Your task to perform on an android device: change keyboard looks Image 0: 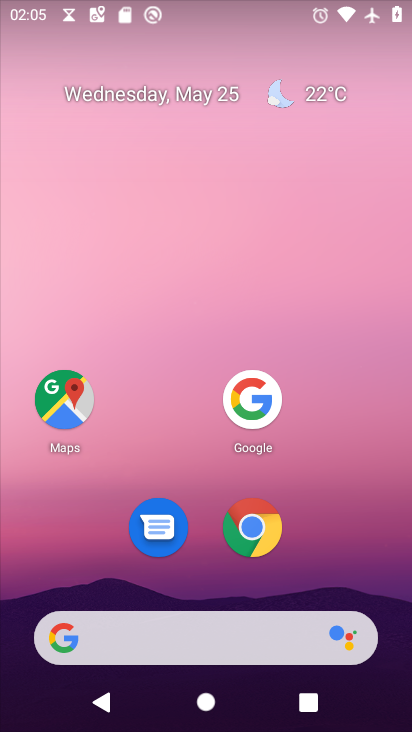
Step 0: press home button
Your task to perform on an android device: change keyboard looks Image 1: 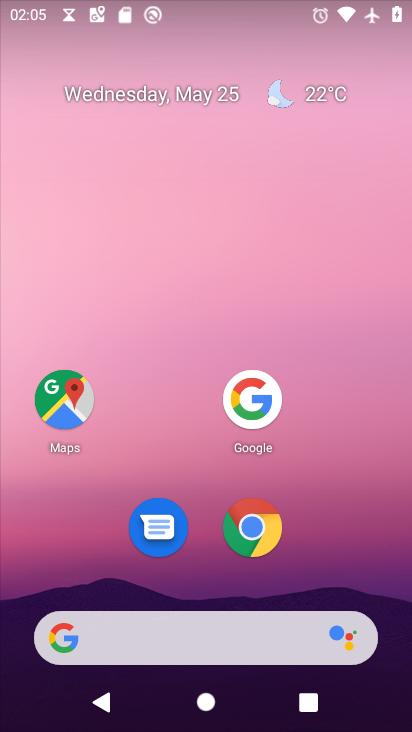
Step 1: drag from (181, 642) to (301, 112)
Your task to perform on an android device: change keyboard looks Image 2: 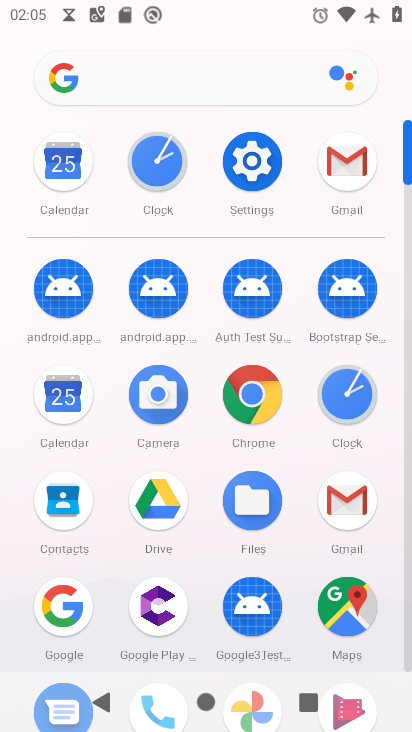
Step 2: click (255, 167)
Your task to perform on an android device: change keyboard looks Image 3: 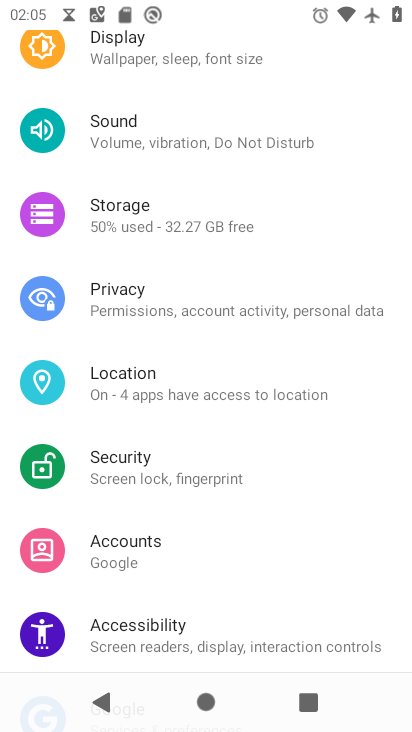
Step 3: drag from (208, 606) to (371, 0)
Your task to perform on an android device: change keyboard looks Image 4: 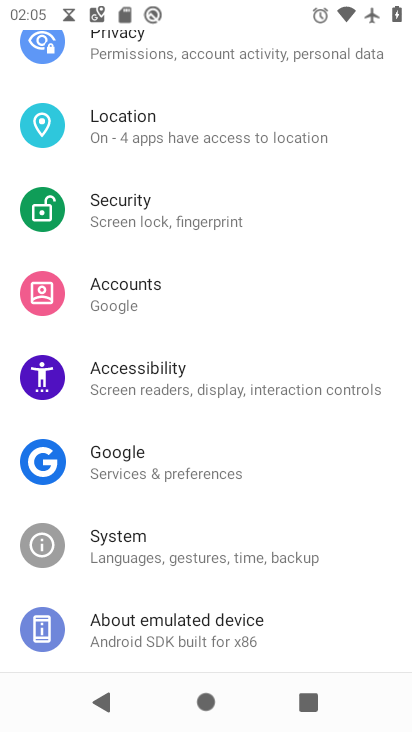
Step 4: click (153, 552)
Your task to perform on an android device: change keyboard looks Image 5: 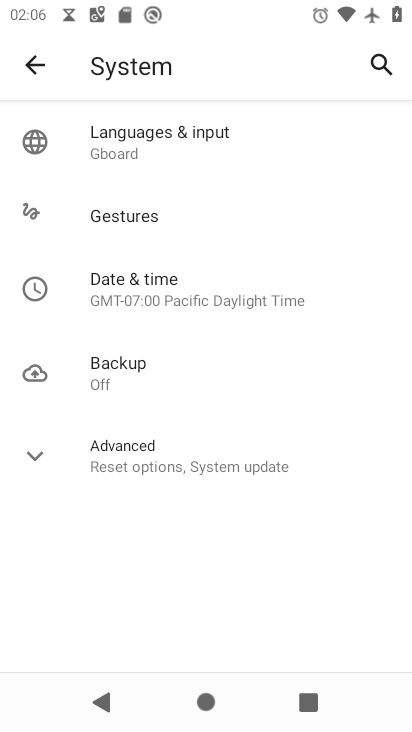
Step 5: click (152, 153)
Your task to perform on an android device: change keyboard looks Image 6: 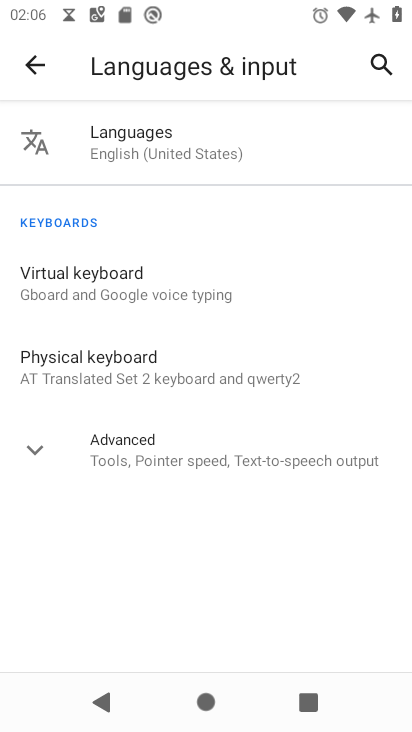
Step 6: click (130, 290)
Your task to perform on an android device: change keyboard looks Image 7: 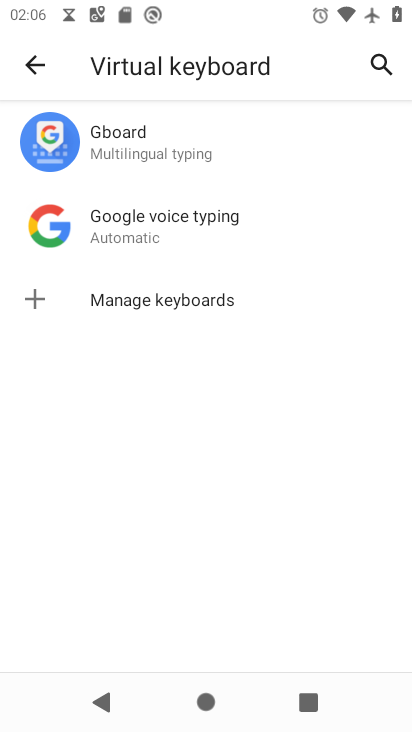
Step 7: click (138, 131)
Your task to perform on an android device: change keyboard looks Image 8: 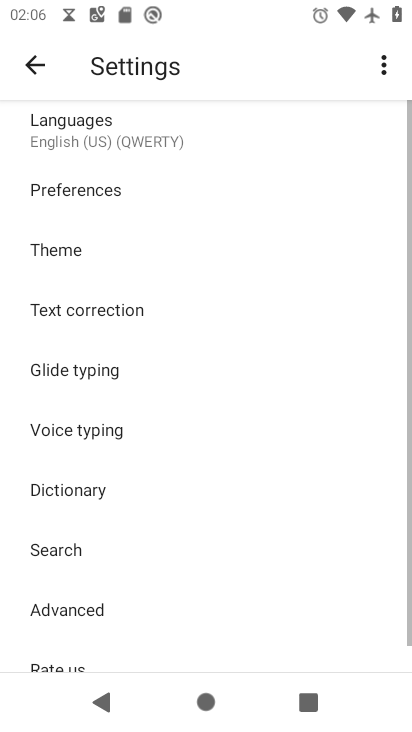
Step 8: click (77, 259)
Your task to perform on an android device: change keyboard looks Image 9: 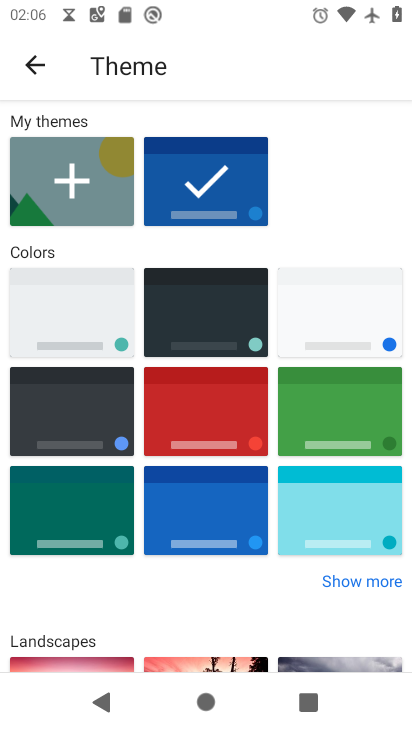
Step 9: click (213, 398)
Your task to perform on an android device: change keyboard looks Image 10: 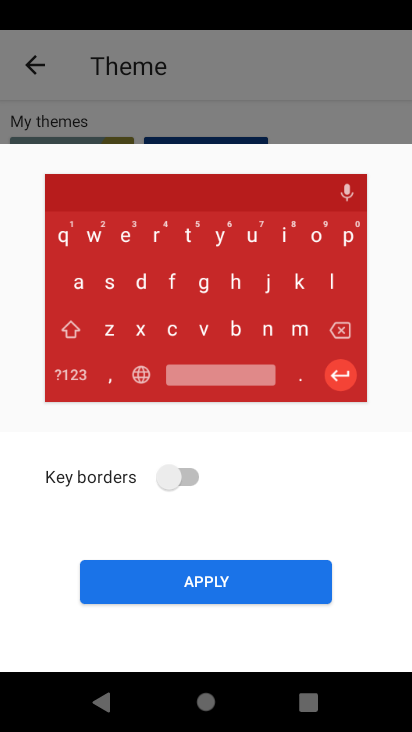
Step 10: click (217, 571)
Your task to perform on an android device: change keyboard looks Image 11: 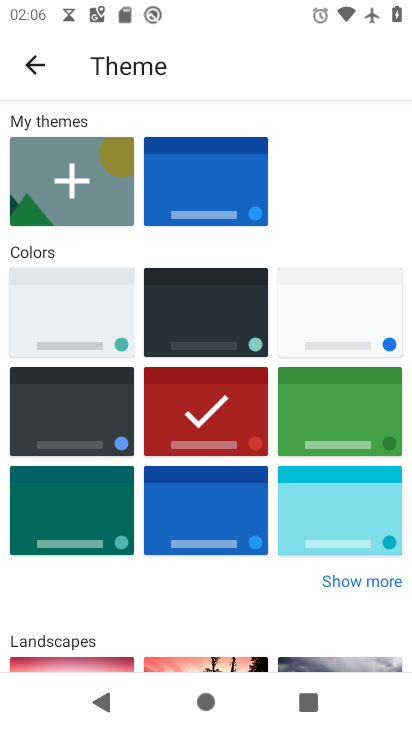
Step 11: task complete